Your task to perform on an android device: turn on improve location accuracy Image 0: 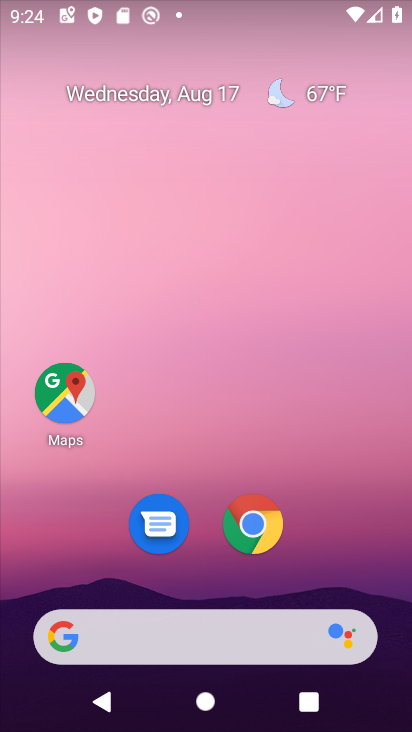
Step 0: drag from (320, 378) to (325, 19)
Your task to perform on an android device: turn on improve location accuracy Image 1: 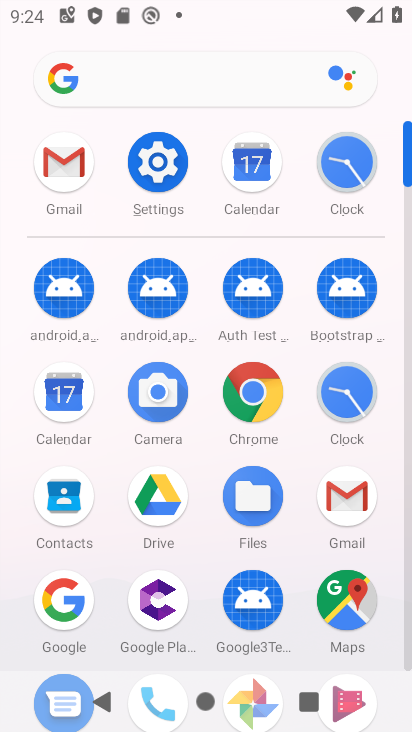
Step 1: click (158, 159)
Your task to perform on an android device: turn on improve location accuracy Image 2: 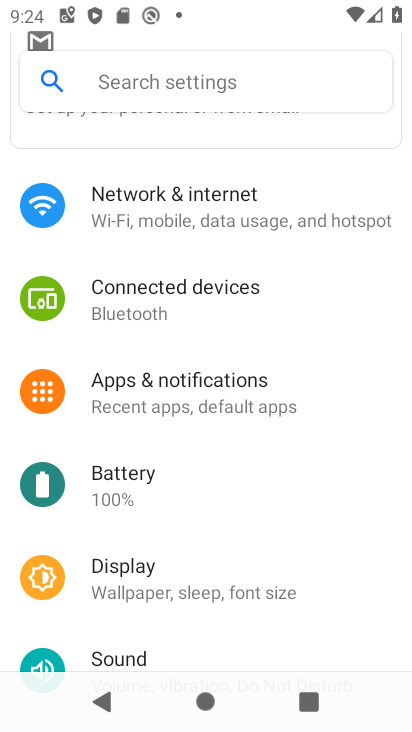
Step 2: drag from (209, 525) to (255, 63)
Your task to perform on an android device: turn on improve location accuracy Image 3: 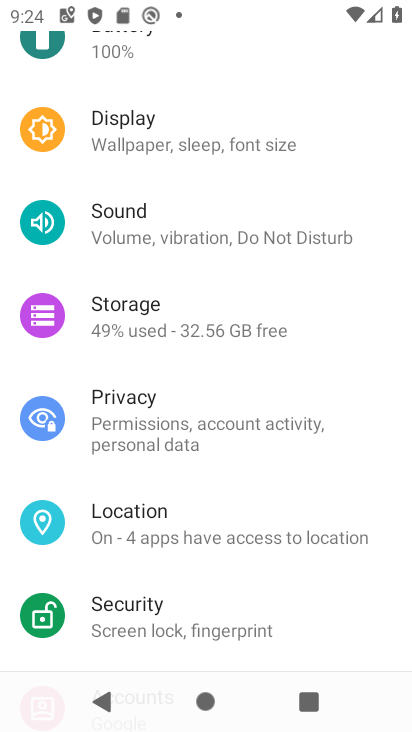
Step 3: click (228, 527)
Your task to perform on an android device: turn on improve location accuracy Image 4: 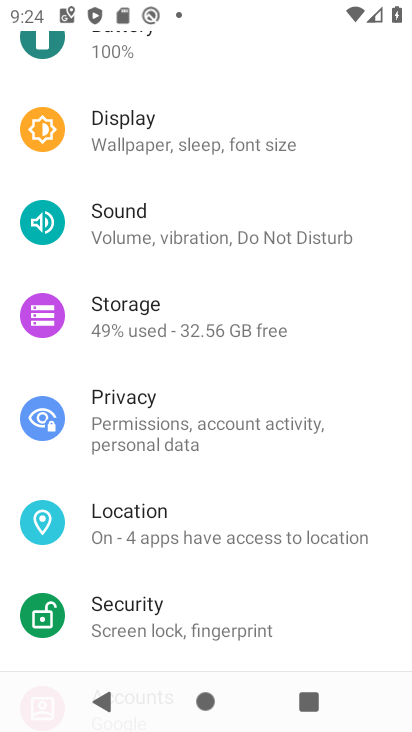
Step 4: click (228, 527)
Your task to perform on an android device: turn on improve location accuracy Image 5: 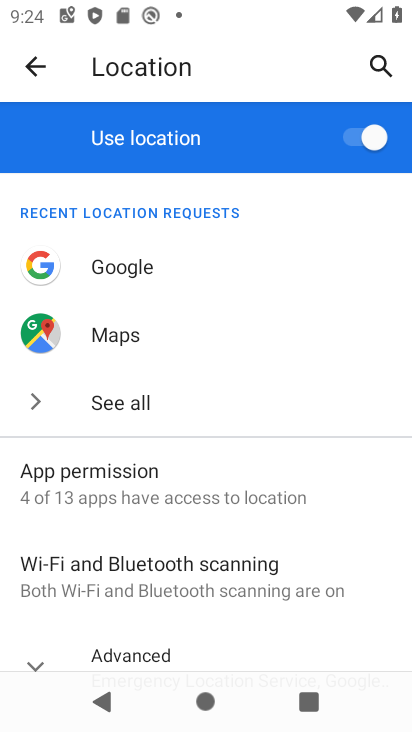
Step 5: drag from (234, 470) to (245, 139)
Your task to perform on an android device: turn on improve location accuracy Image 6: 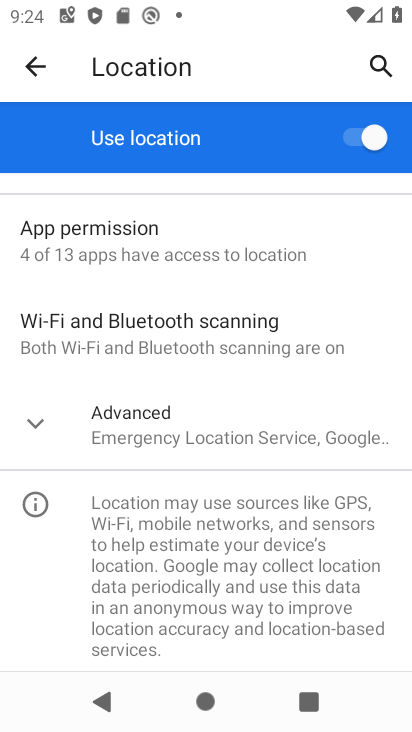
Step 6: click (37, 419)
Your task to perform on an android device: turn on improve location accuracy Image 7: 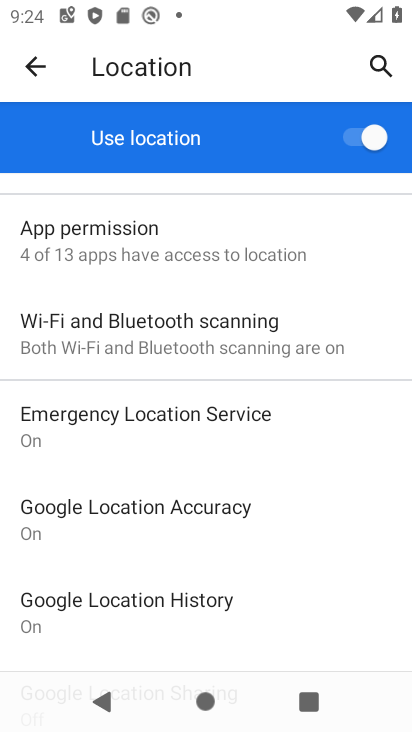
Step 7: task complete